Your task to perform on an android device: Is it going to rain this weekend? Image 0: 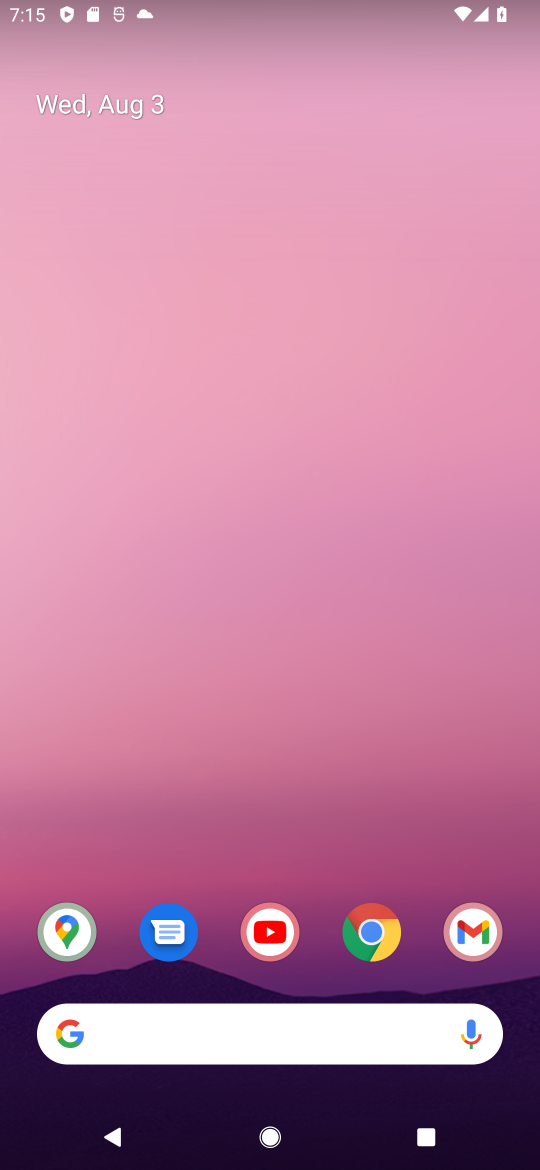
Step 0: click (400, 1028)
Your task to perform on an android device: Is it going to rain this weekend? Image 1: 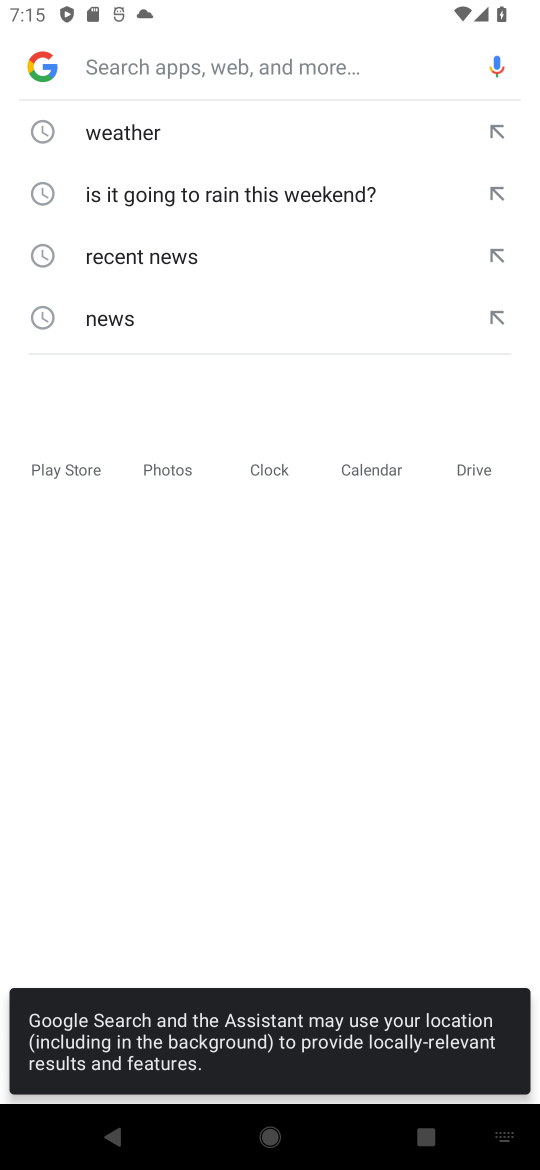
Step 1: click (391, 192)
Your task to perform on an android device: Is it going to rain this weekend? Image 2: 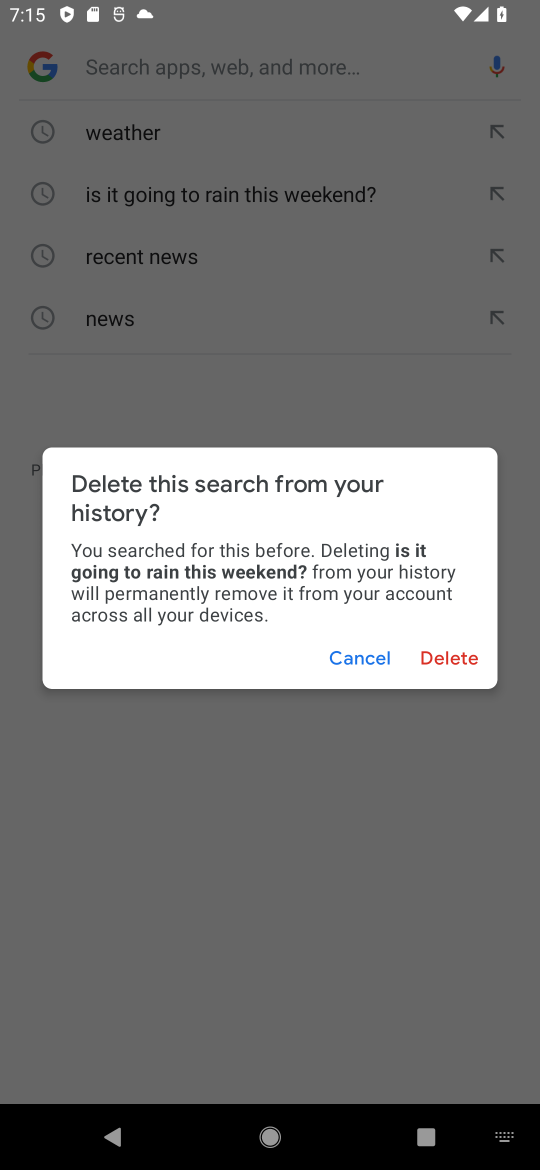
Step 2: click (351, 664)
Your task to perform on an android device: Is it going to rain this weekend? Image 3: 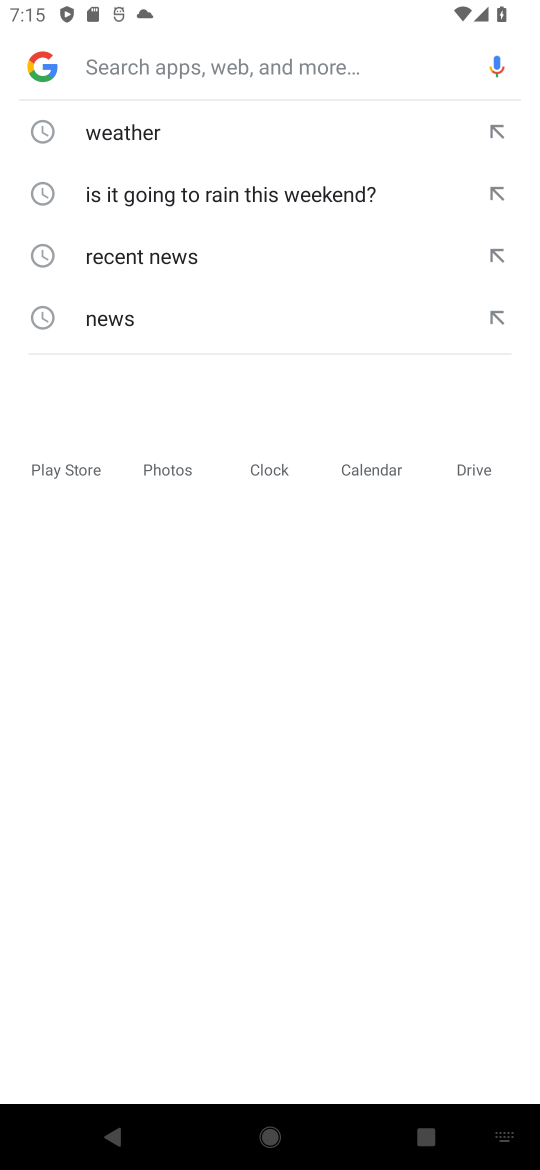
Step 3: click (267, 189)
Your task to perform on an android device: Is it going to rain this weekend? Image 4: 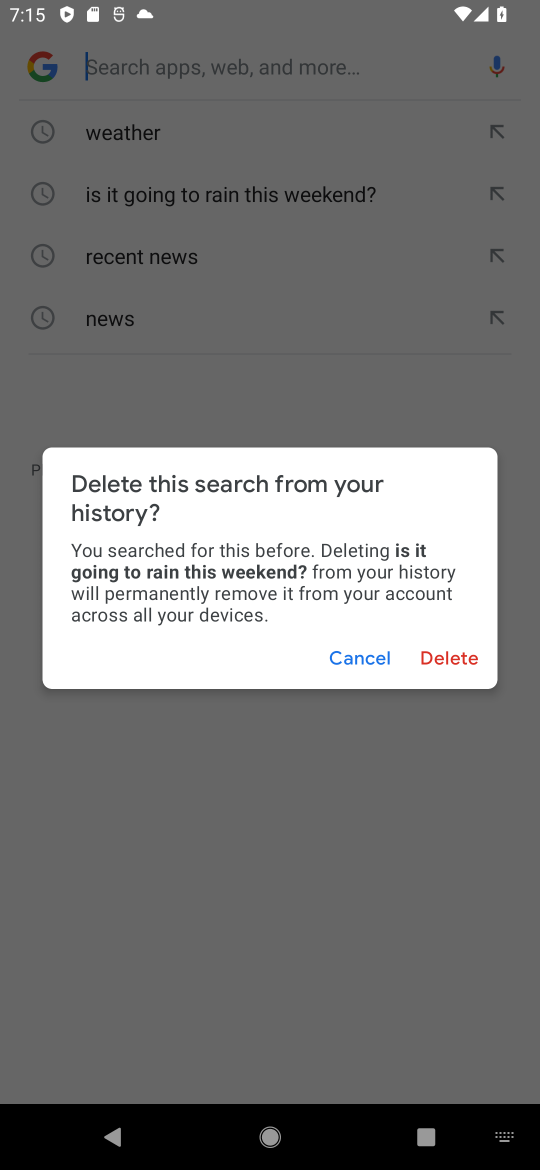
Step 4: click (460, 657)
Your task to perform on an android device: Is it going to rain this weekend? Image 5: 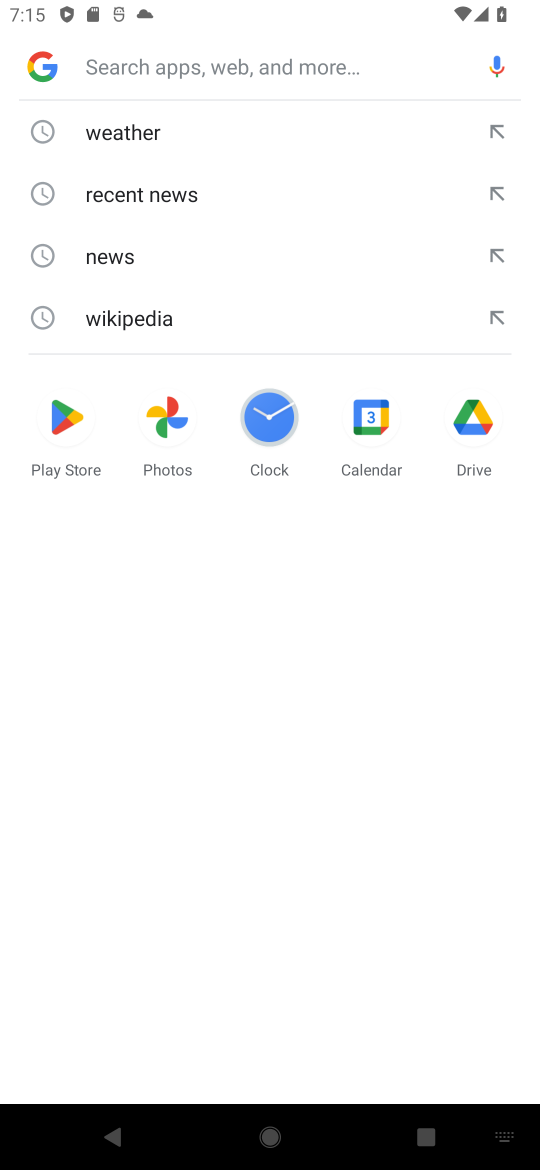
Step 5: type "Is it going to rain this weekend?"
Your task to perform on an android device: Is it going to rain this weekend? Image 6: 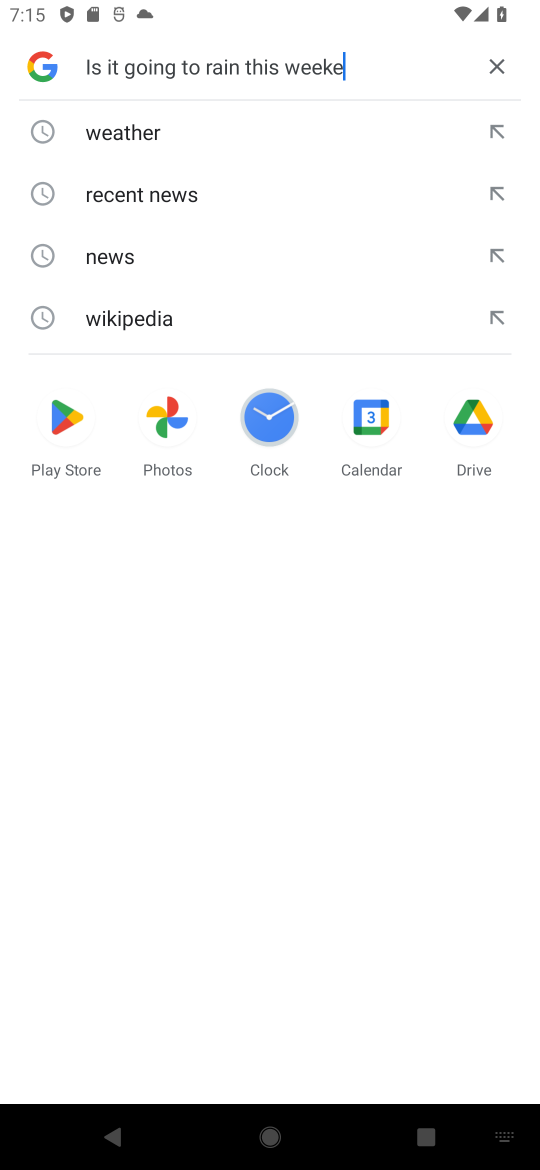
Step 6: type ""
Your task to perform on an android device: Is it going to rain this weekend? Image 7: 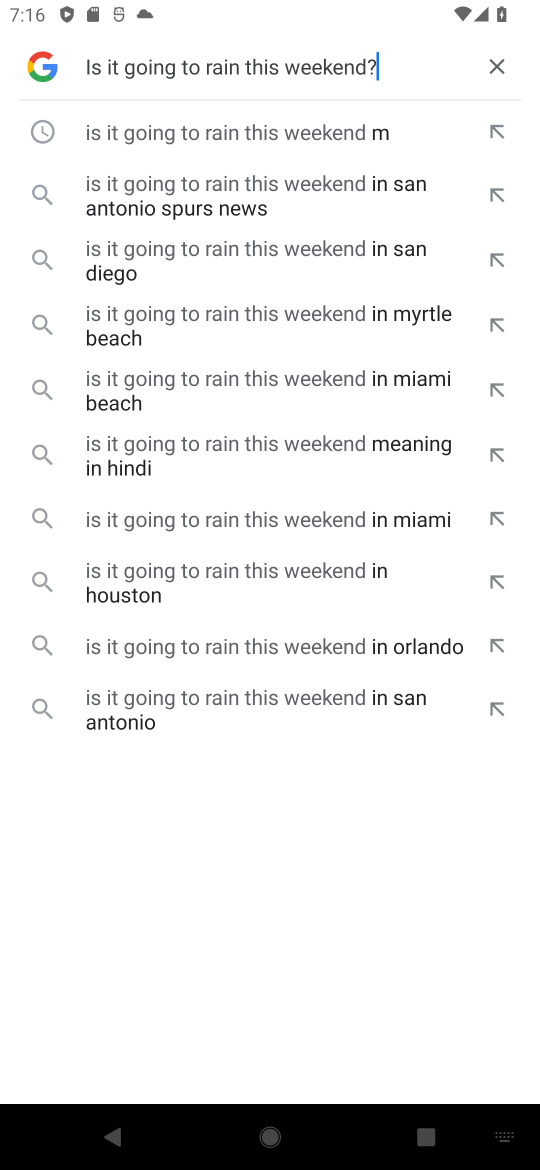
Step 7: press enter
Your task to perform on an android device: Is it going to rain this weekend? Image 8: 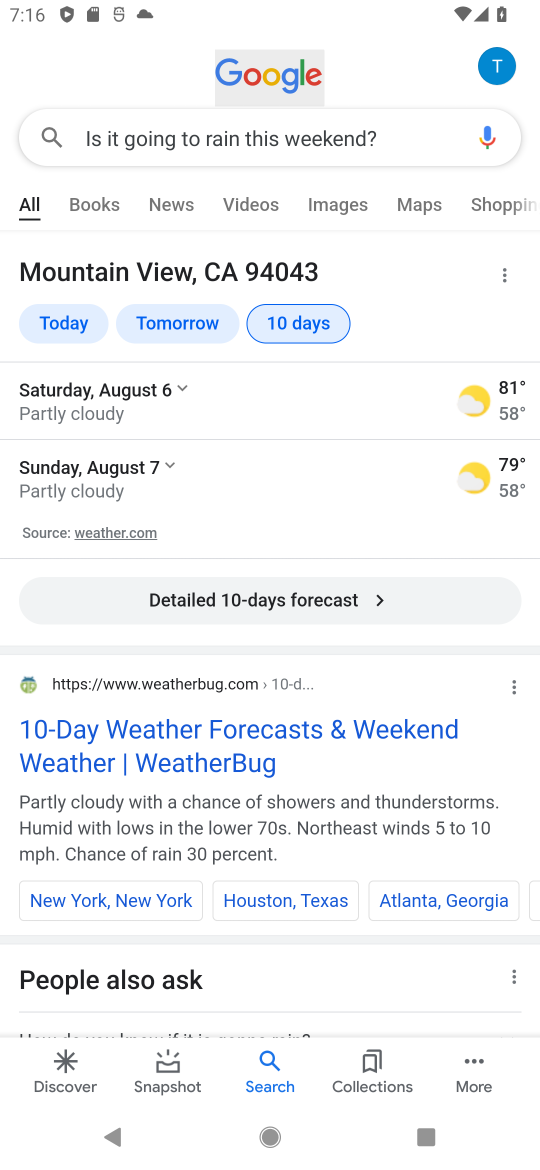
Step 8: task complete